Your task to perform on an android device: Open ESPN.com Image 0: 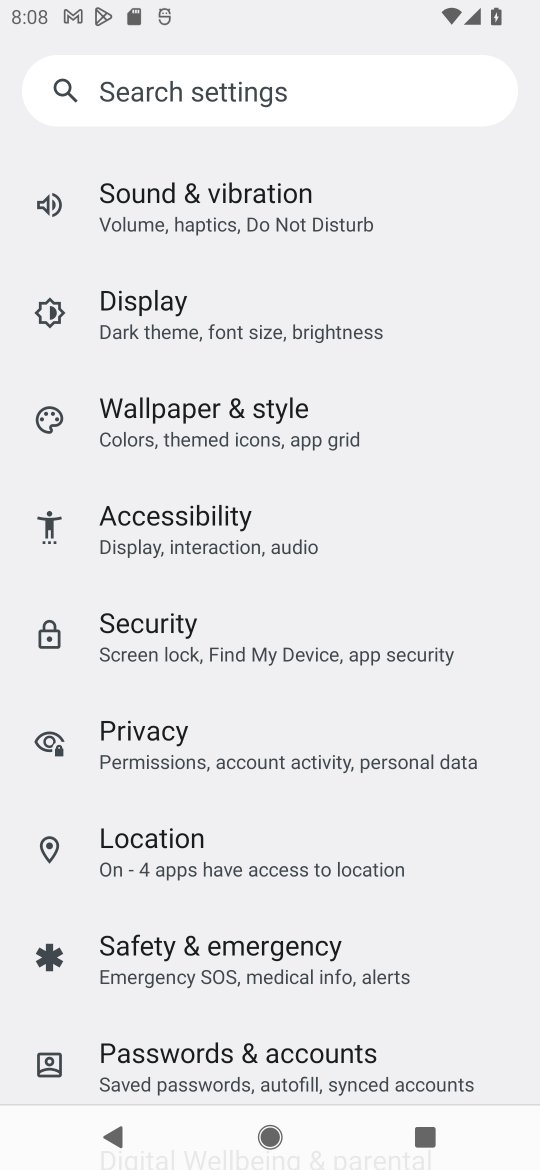
Step 0: press home button
Your task to perform on an android device: Open ESPN.com Image 1: 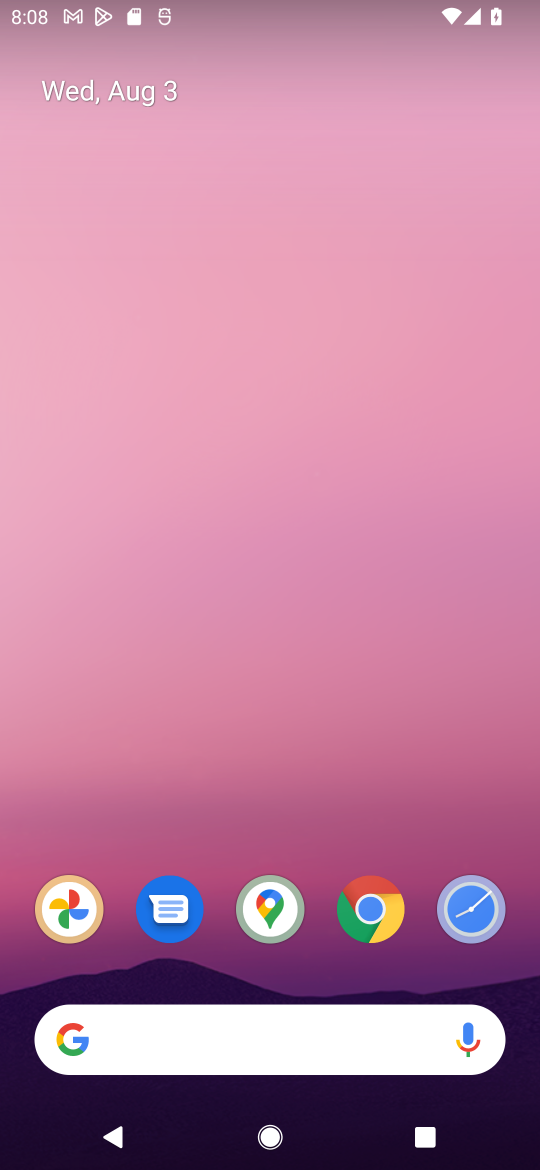
Step 1: drag from (411, 753) to (405, 154)
Your task to perform on an android device: Open ESPN.com Image 2: 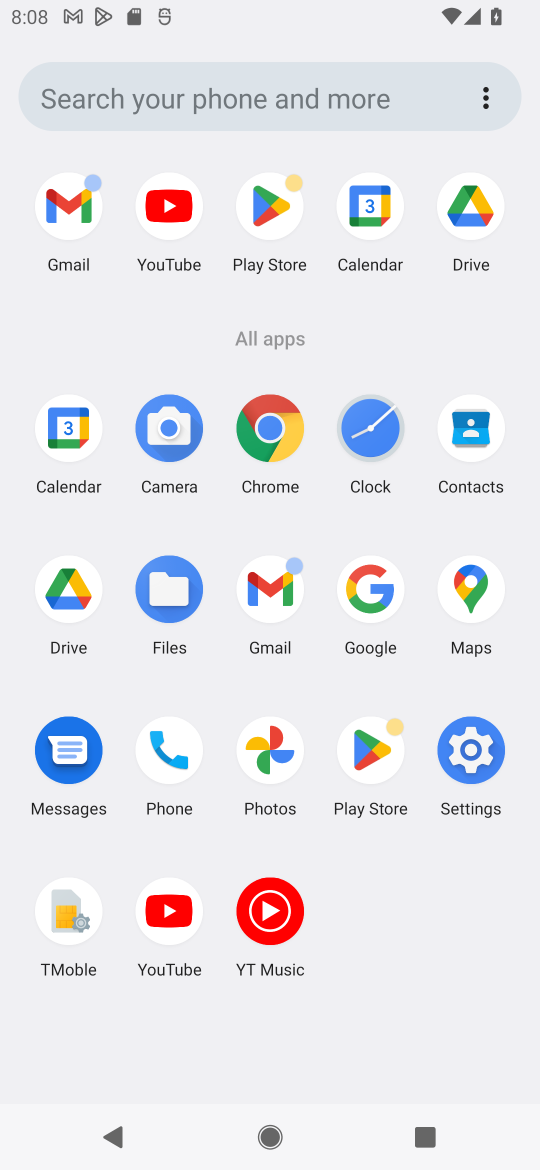
Step 2: click (272, 441)
Your task to perform on an android device: Open ESPN.com Image 3: 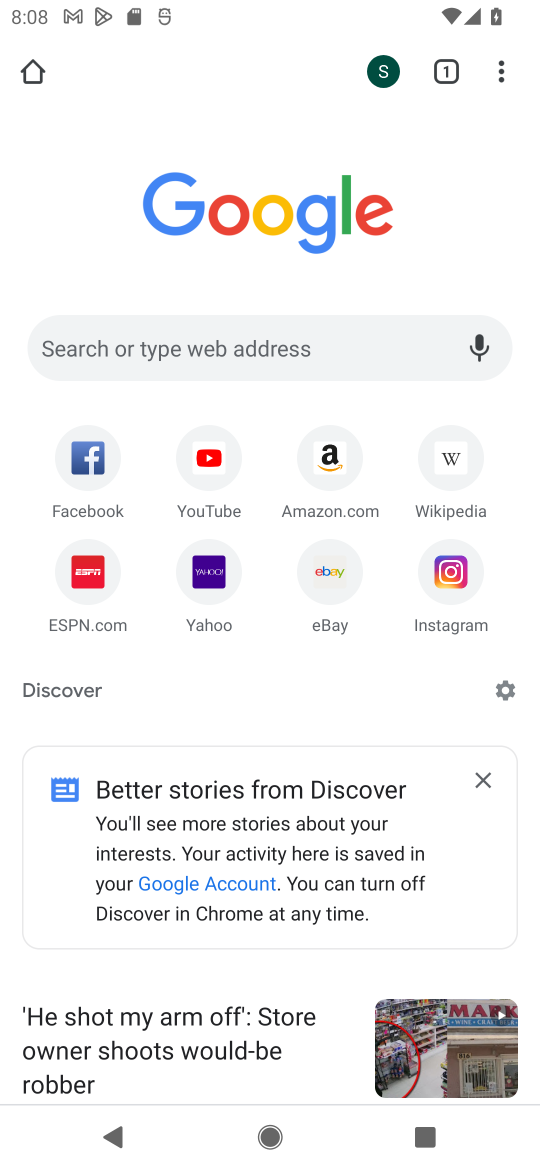
Step 3: click (331, 341)
Your task to perform on an android device: Open ESPN.com Image 4: 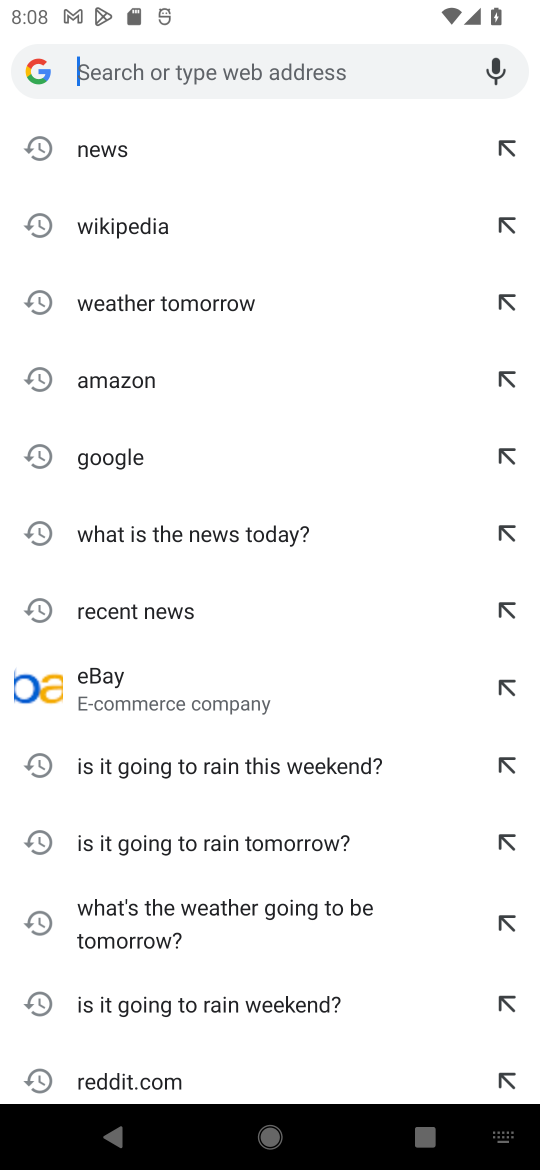
Step 4: type "espn.com"
Your task to perform on an android device: Open ESPN.com Image 5: 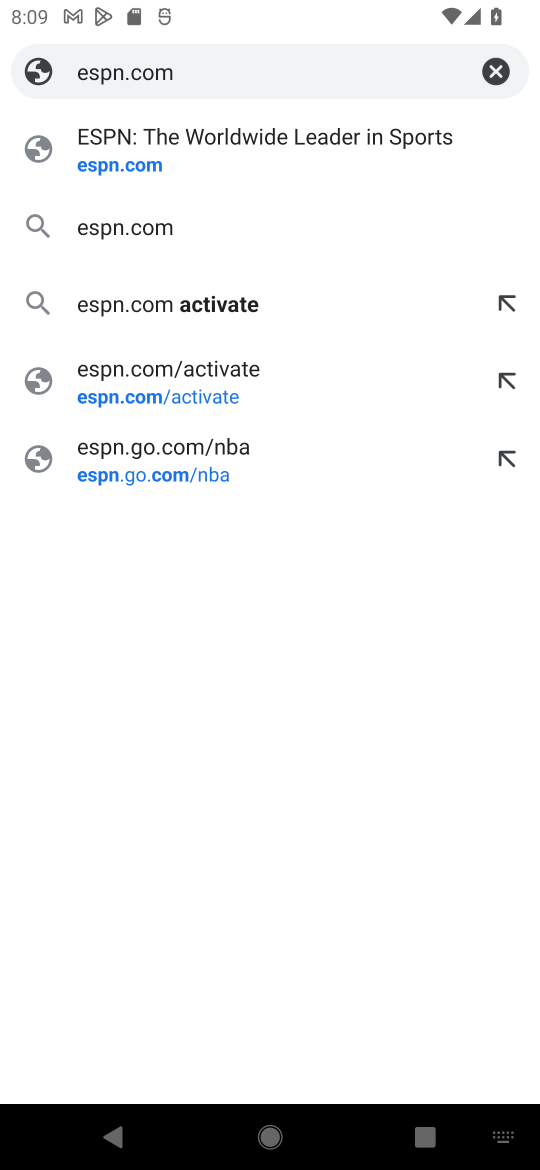
Step 5: click (241, 156)
Your task to perform on an android device: Open ESPN.com Image 6: 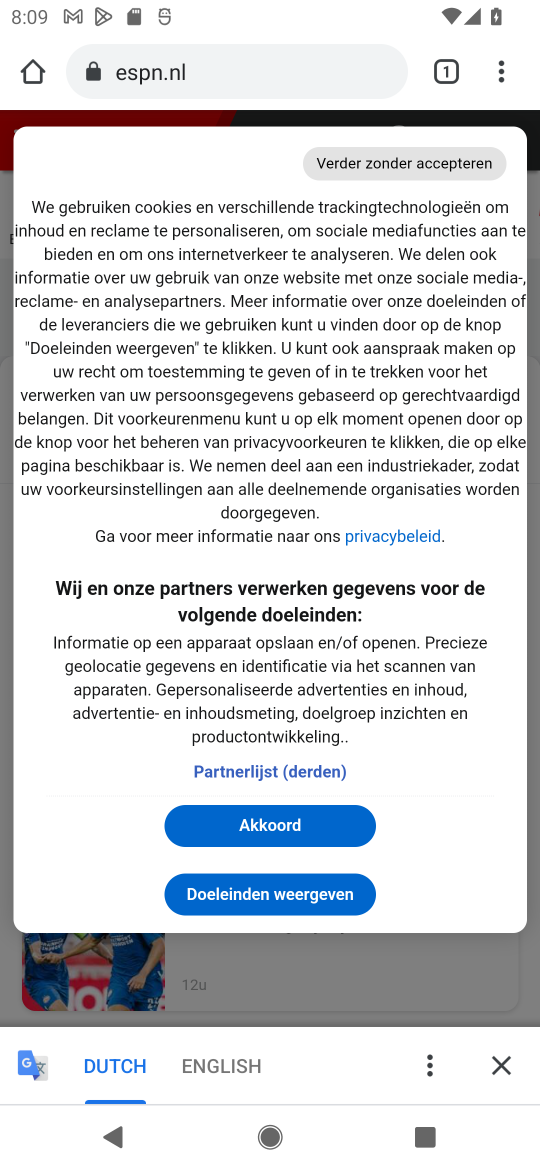
Step 6: task complete